Your task to perform on an android device: add a contact Image 0: 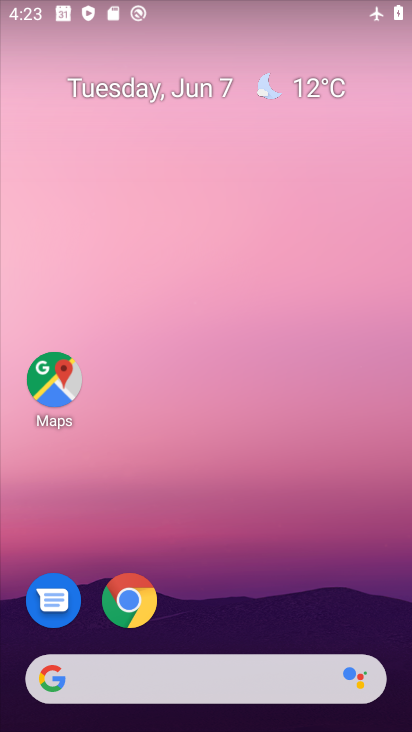
Step 0: drag from (222, 656) to (222, 223)
Your task to perform on an android device: add a contact Image 1: 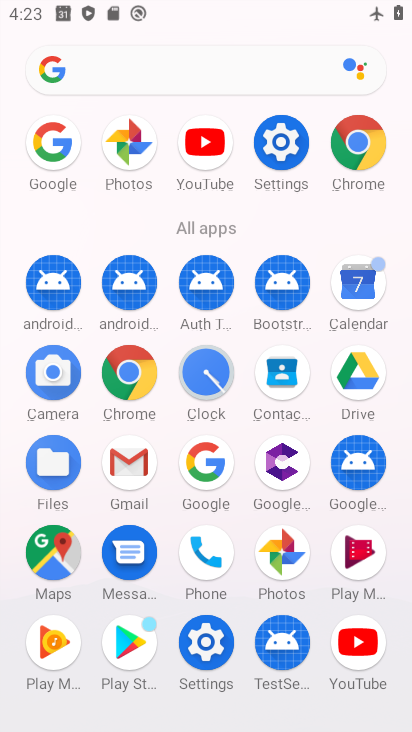
Step 1: click (206, 561)
Your task to perform on an android device: add a contact Image 2: 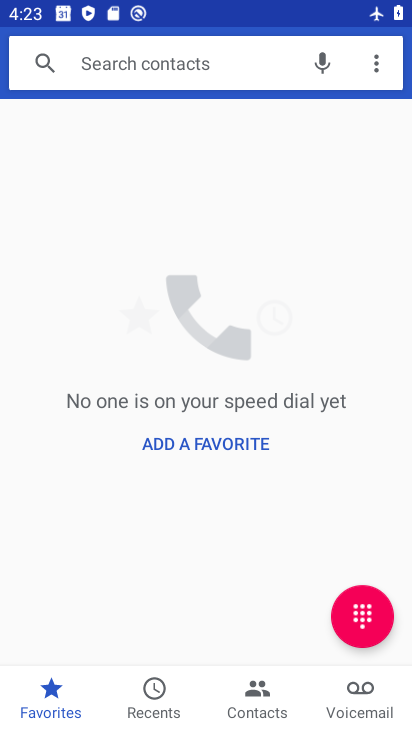
Step 2: click (369, 622)
Your task to perform on an android device: add a contact Image 3: 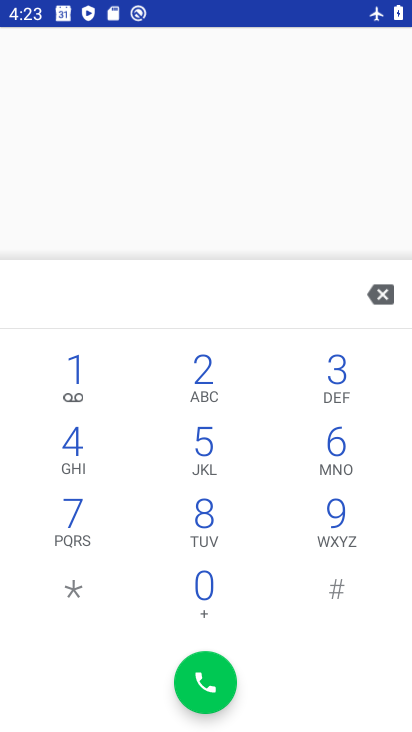
Step 3: click (82, 525)
Your task to perform on an android device: add a contact Image 4: 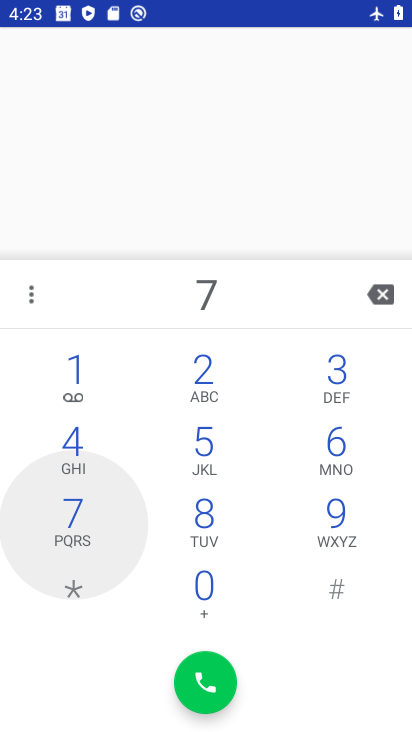
Step 4: click (231, 528)
Your task to perform on an android device: add a contact Image 5: 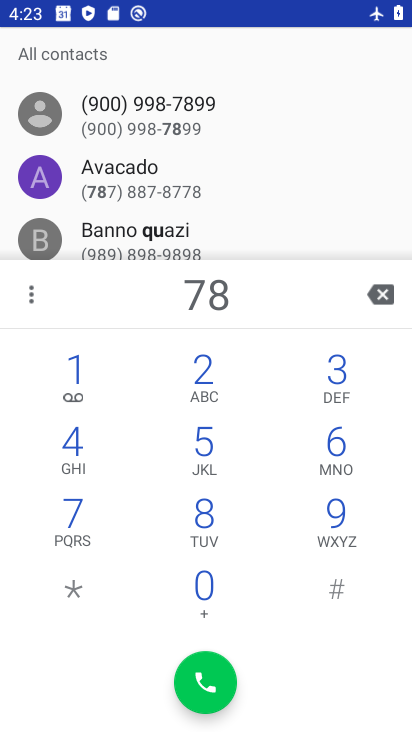
Step 5: click (204, 437)
Your task to perform on an android device: add a contact Image 6: 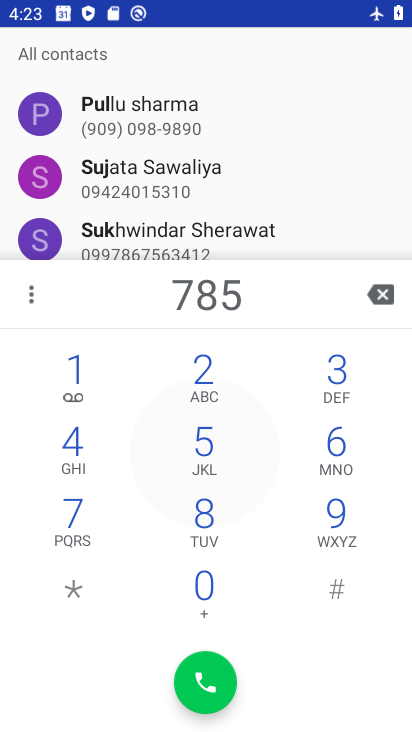
Step 6: click (74, 440)
Your task to perform on an android device: add a contact Image 7: 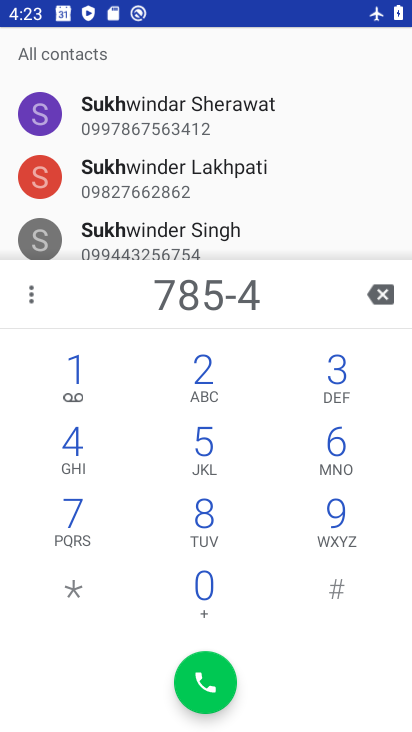
Step 7: click (85, 357)
Your task to perform on an android device: add a contact Image 8: 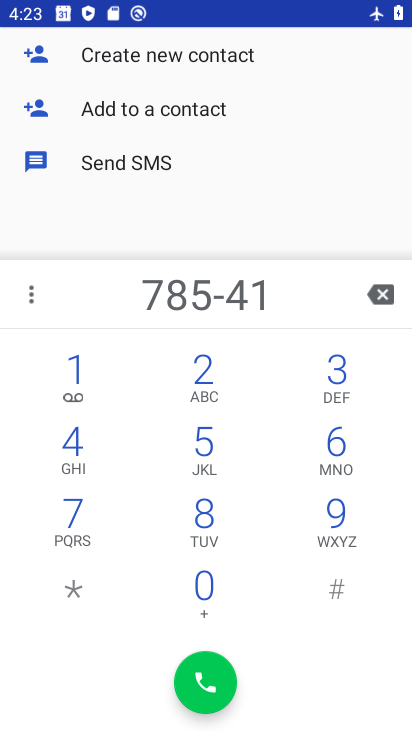
Step 8: click (209, 368)
Your task to perform on an android device: add a contact Image 9: 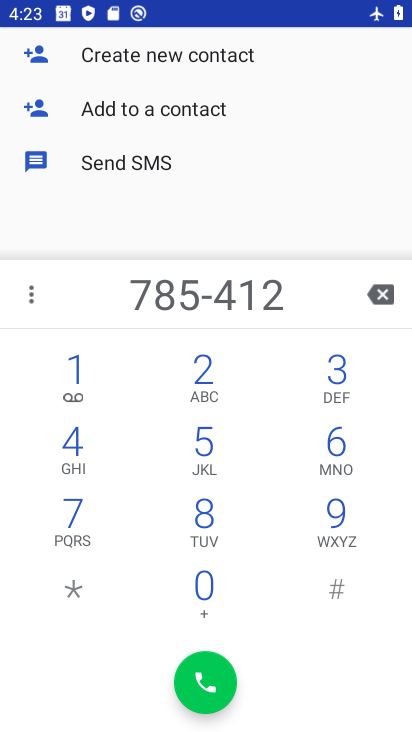
Step 9: click (344, 456)
Your task to perform on an android device: add a contact Image 10: 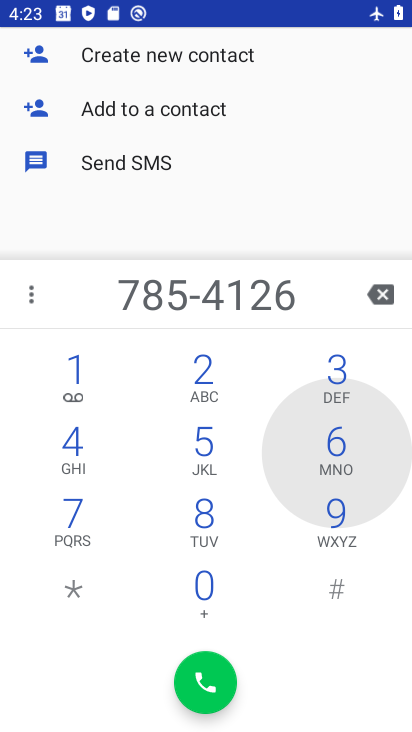
Step 10: click (330, 535)
Your task to perform on an android device: add a contact Image 11: 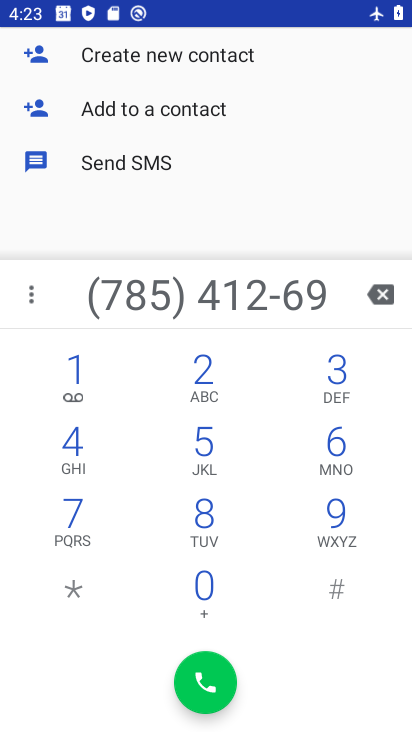
Step 11: click (211, 517)
Your task to perform on an android device: add a contact Image 12: 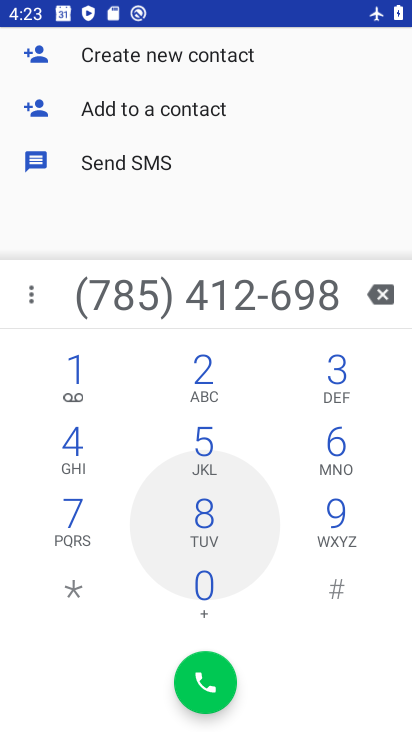
Step 12: click (195, 450)
Your task to perform on an android device: add a contact Image 13: 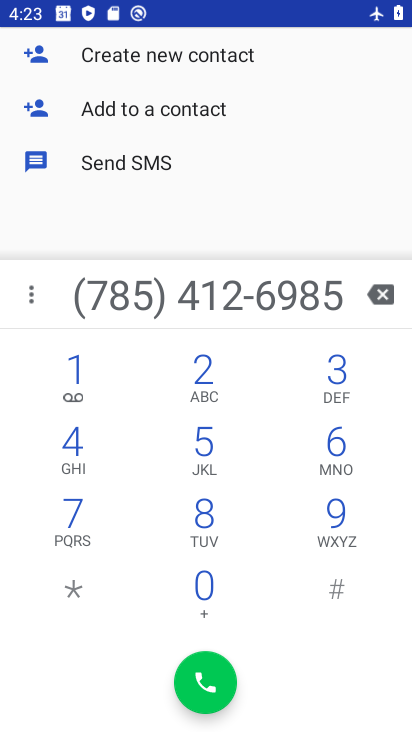
Step 13: click (132, 70)
Your task to perform on an android device: add a contact Image 14: 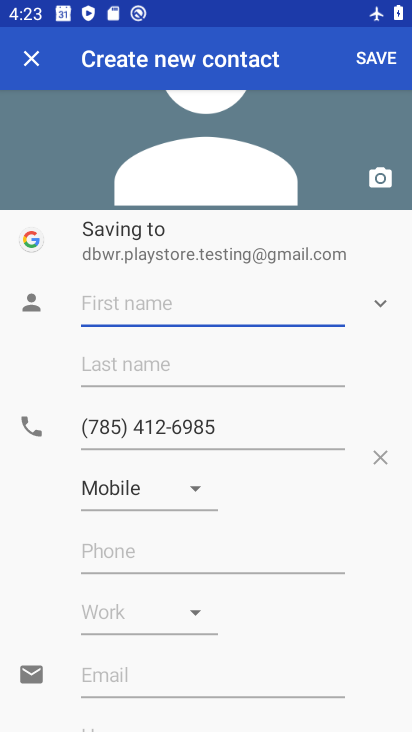
Step 14: type "nilu"
Your task to perform on an android device: add a contact Image 15: 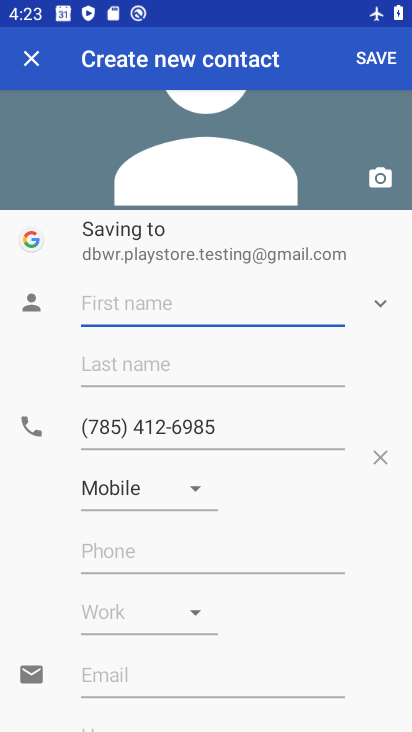
Step 15: click (381, 62)
Your task to perform on an android device: add a contact Image 16: 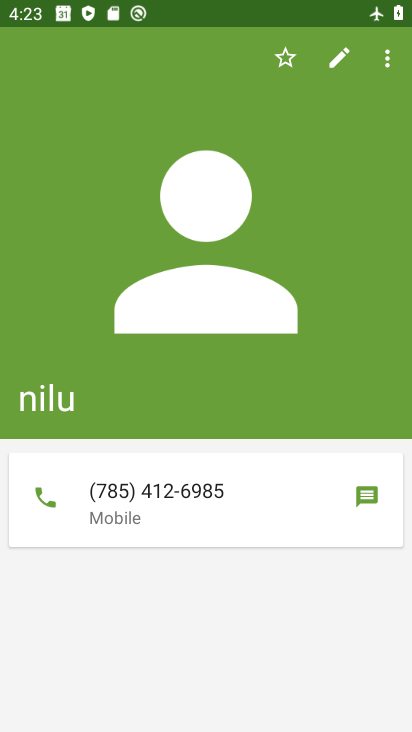
Step 16: task complete